Your task to perform on an android device: Set the phone to "Do not disturb". Image 0: 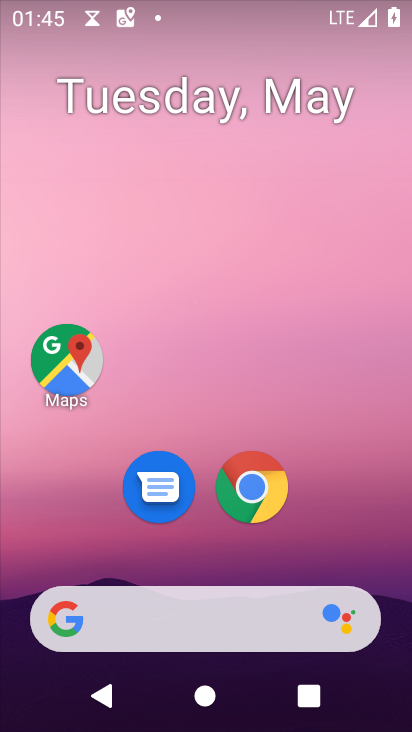
Step 0: drag from (263, 547) to (304, 331)
Your task to perform on an android device: Set the phone to "Do not disturb". Image 1: 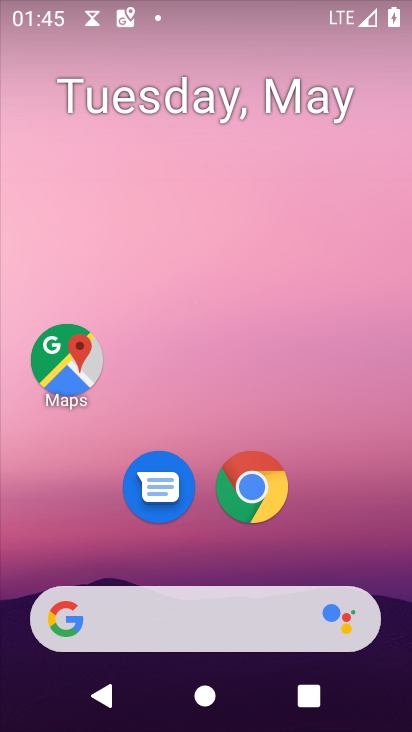
Step 1: drag from (231, 543) to (232, 312)
Your task to perform on an android device: Set the phone to "Do not disturb". Image 2: 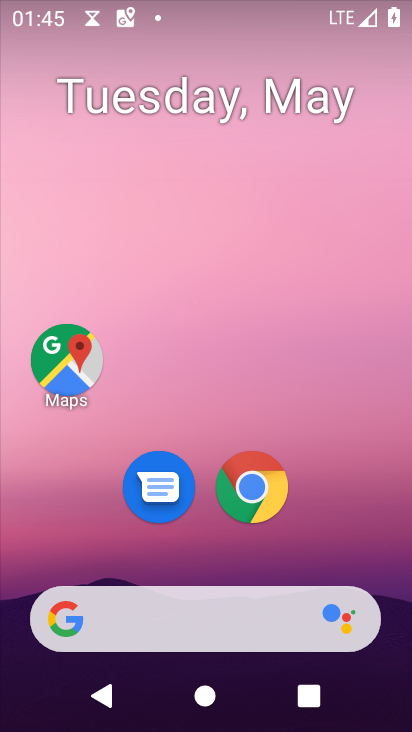
Step 2: drag from (154, 560) to (203, 204)
Your task to perform on an android device: Set the phone to "Do not disturb". Image 3: 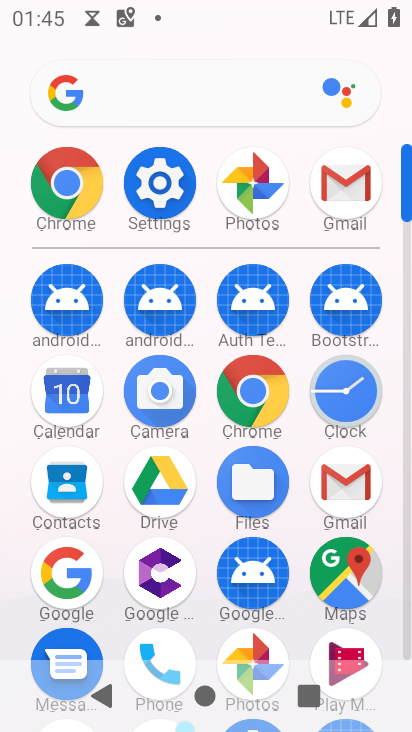
Step 3: click (146, 211)
Your task to perform on an android device: Set the phone to "Do not disturb". Image 4: 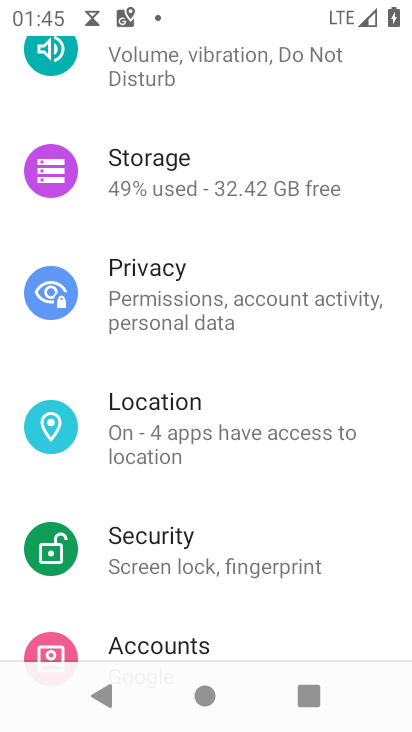
Step 4: task complete